Your task to perform on an android device: Go to network settings Image 0: 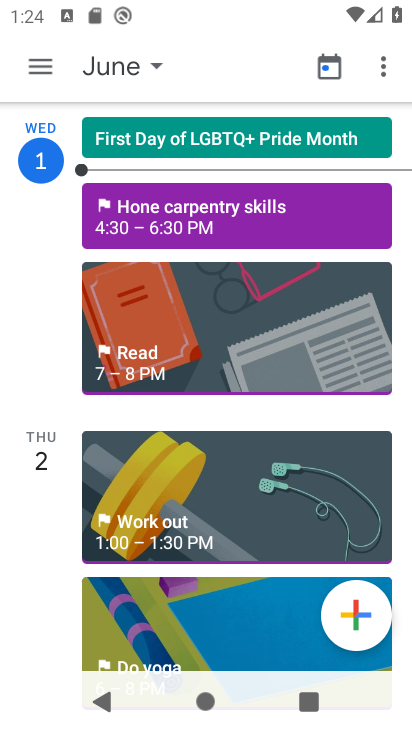
Step 0: press home button
Your task to perform on an android device: Go to network settings Image 1: 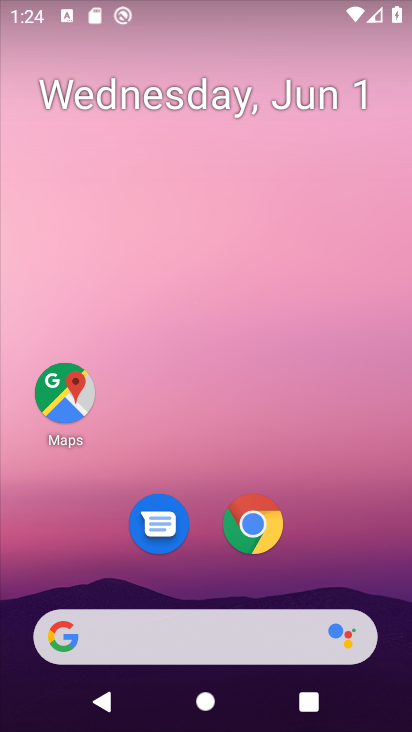
Step 1: drag from (302, 537) to (333, 57)
Your task to perform on an android device: Go to network settings Image 2: 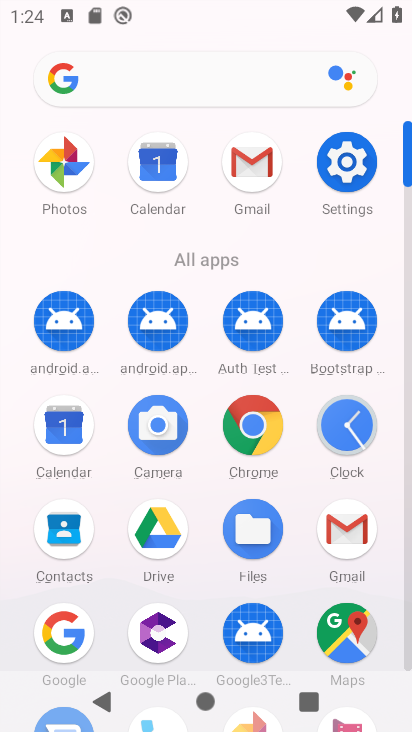
Step 2: click (346, 153)
Your task to perform on an android device: Go to network settings Image 3: 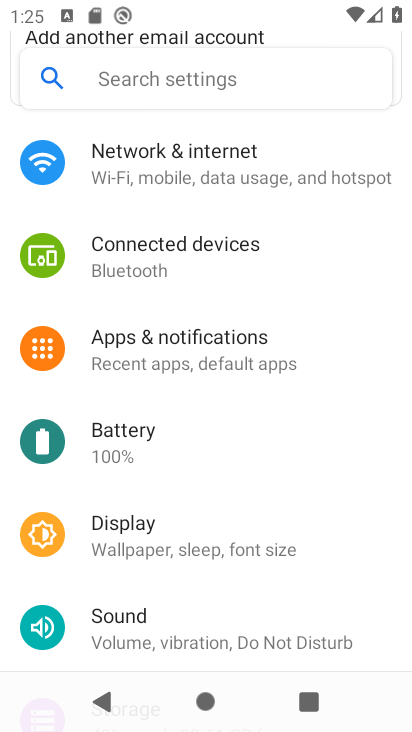
Step 3: click (277, 171)
Your task to perform on an android device: Go to network settings Image 4: 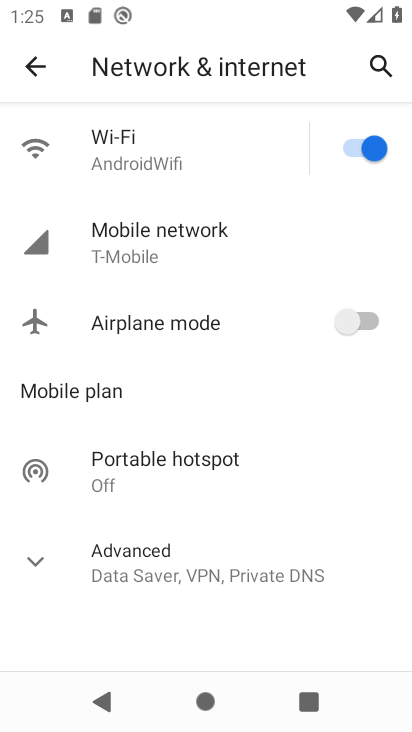
Step 4: click (212, 241)
Your task to perform on an android device: Go to network settings Image 5: 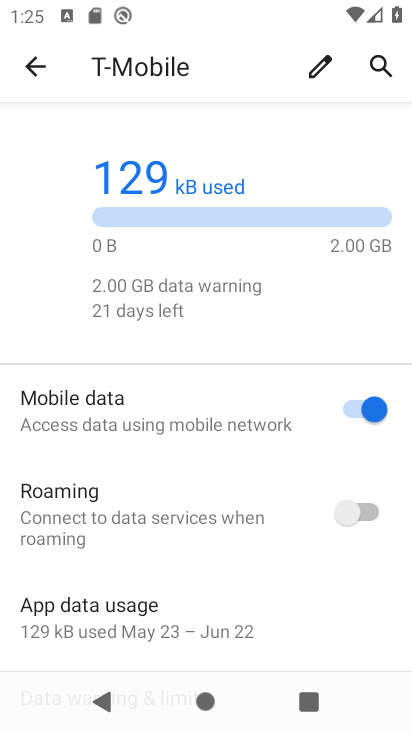
Step 5: click (40, 65)
Your task to perform on an android device: Go to network settings Image 6: 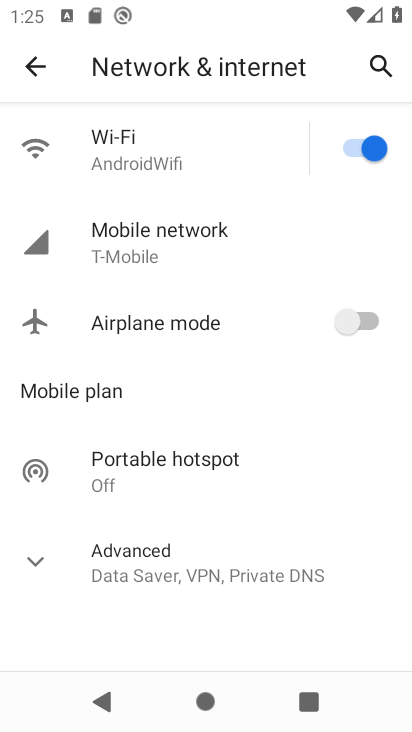
Step 6: task complete